Your task to perform on an android device: Turn on the flashlight Image 0: 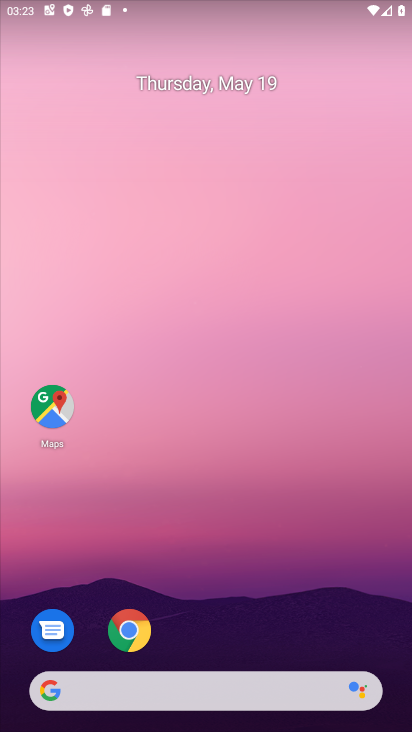
Step 0: drag from (210, 19) to (269, 611)
Your task to perform on an android device: Turn on the flashlight Image 1: 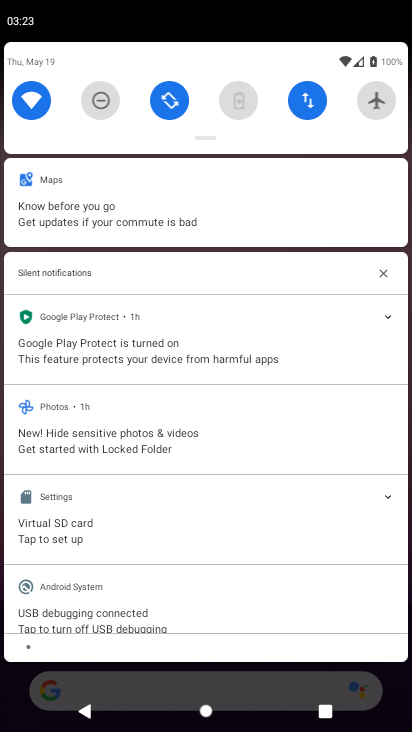
Step 1: drag from (201, 133) to (201, 410)
Your task to perform on an android device: Turn on the flashlight Image 2: 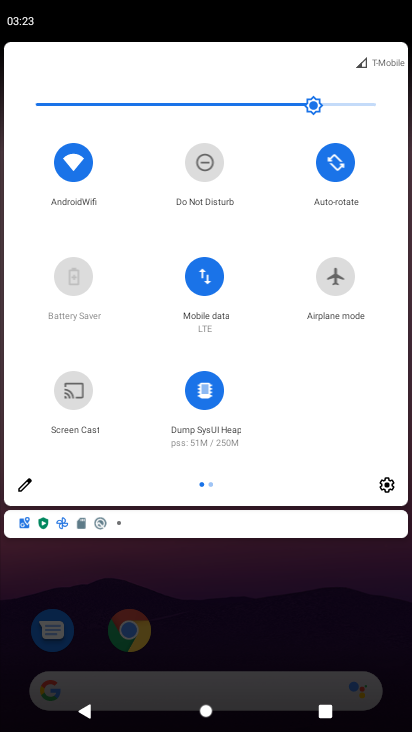
Step 2: click (21, 484)
Your task to perform on an android device: Turn on the flashlight Image 3: 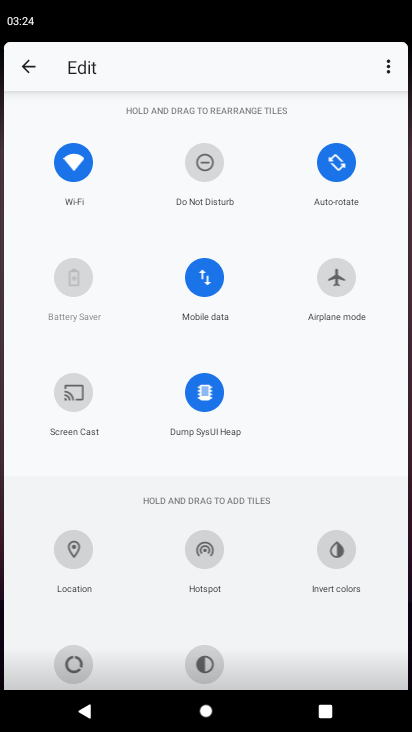
Step 3: task complete